Your task to perform on an android device: Is it going to rain today? Image 0: 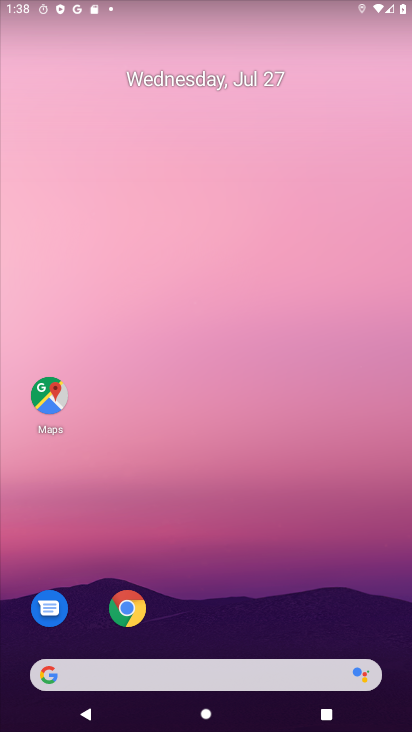
Step 0: drag from (184, 609) to (245, 59)
Your task to perform on an android device: Is it going to rain today? Image 1: 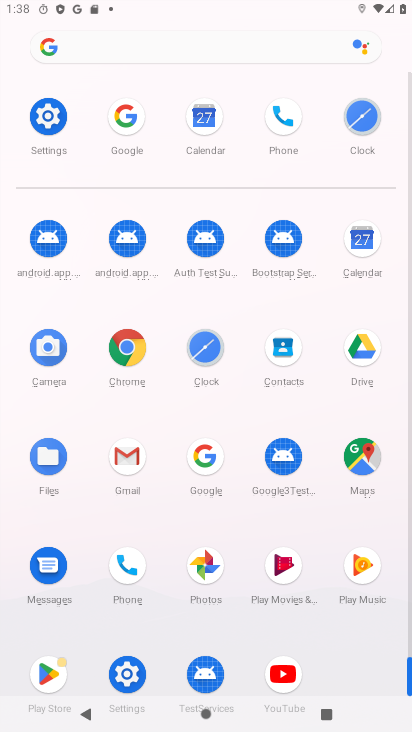
Step 1: click (202, 452)
Your task to perform on an android device: Is it going to rain today? Image 2: 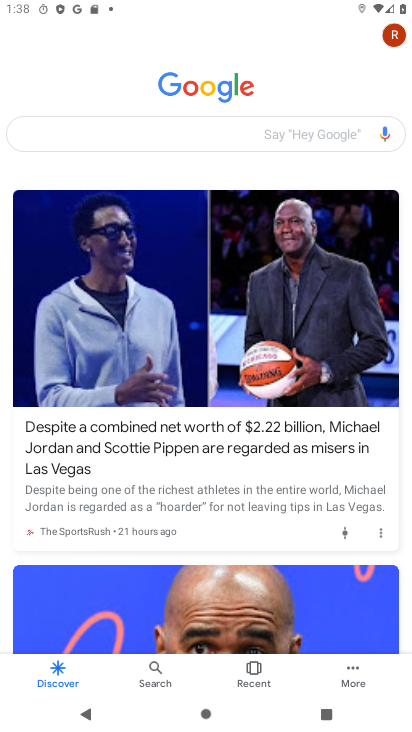
Step 2: click (201, 126)
Your task to perform on an android device: Is it going to rain today? Image 3: 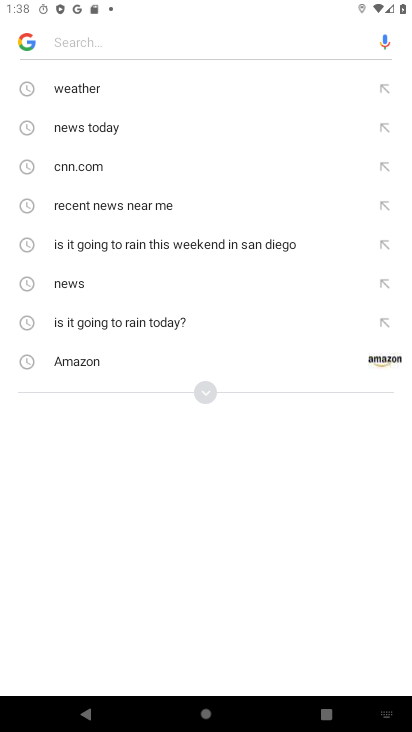
Step 3: click (94, 87)
Your task to perform on an android device: Is it going to rain today? Image 4: 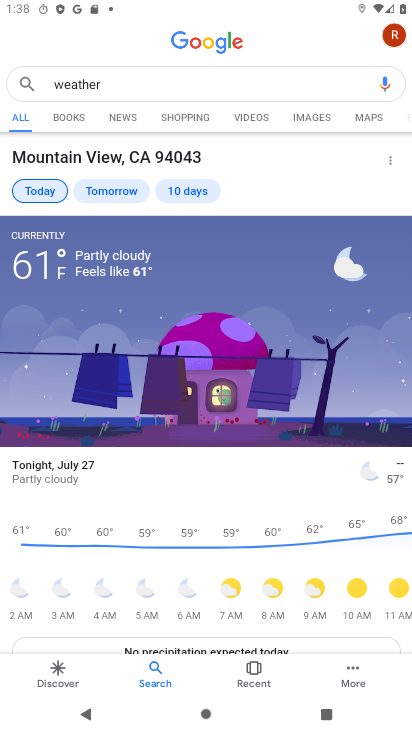
Step 4: task complete